Your task to perform on an android device: When is my next appointment? Image 0: 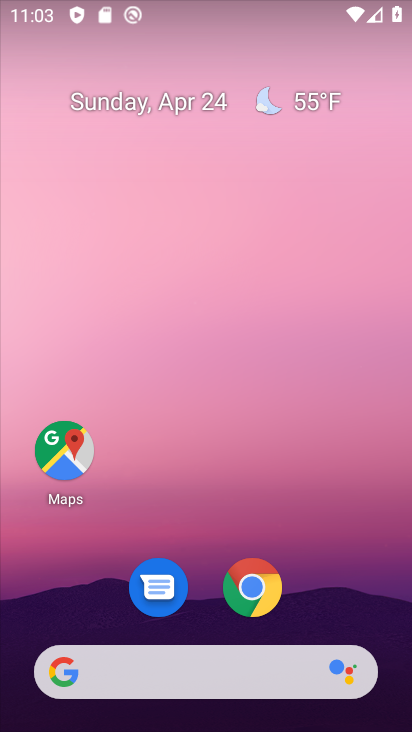
Step 0: drag from (378, 569) to (378, 3)
Your task to perform on an android device: When is my next appointment? Image 1: 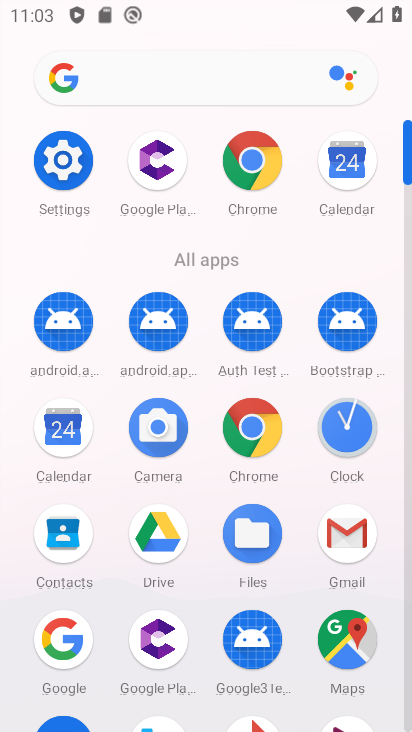
Step 1: click (48, 453)
Your task to perform on an android device: When is my next appointment? Image 2: 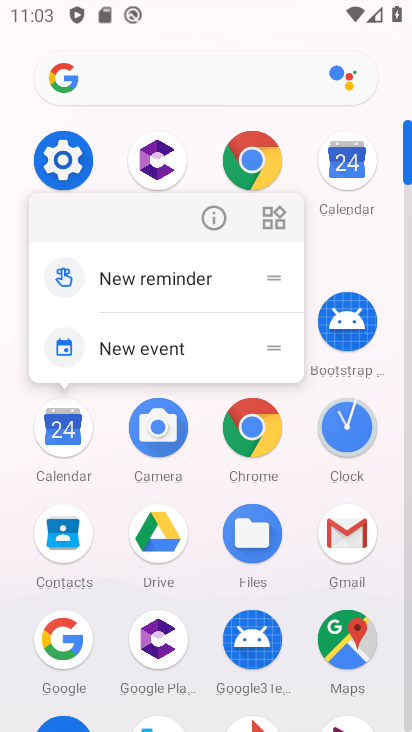
Step 2: click (48, 453)
Your task to perform on an android device: When is my next appointment? Image 3: 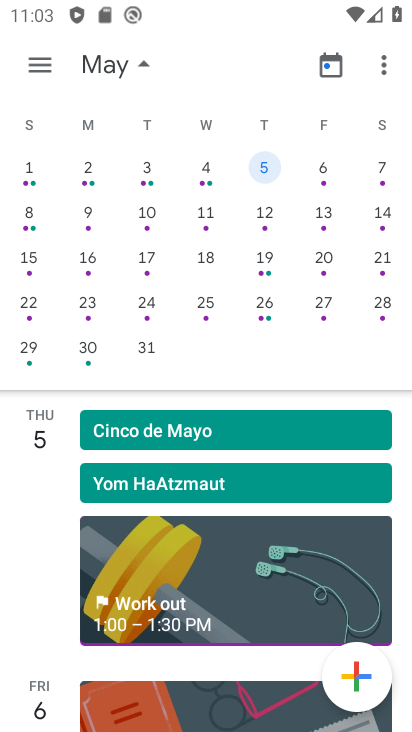
Step 3: click (323, 169)
Your task to perform on an android device: When is my next appointment? Image 4: 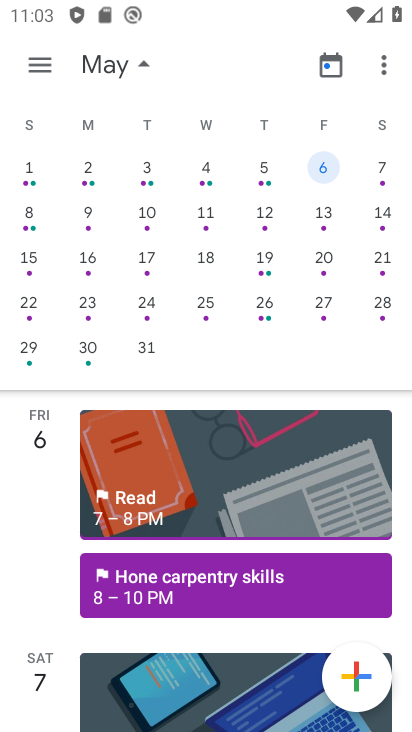
Step 4: task complete